Your task to perform on an android device: Open Yahoo.com Image 0: 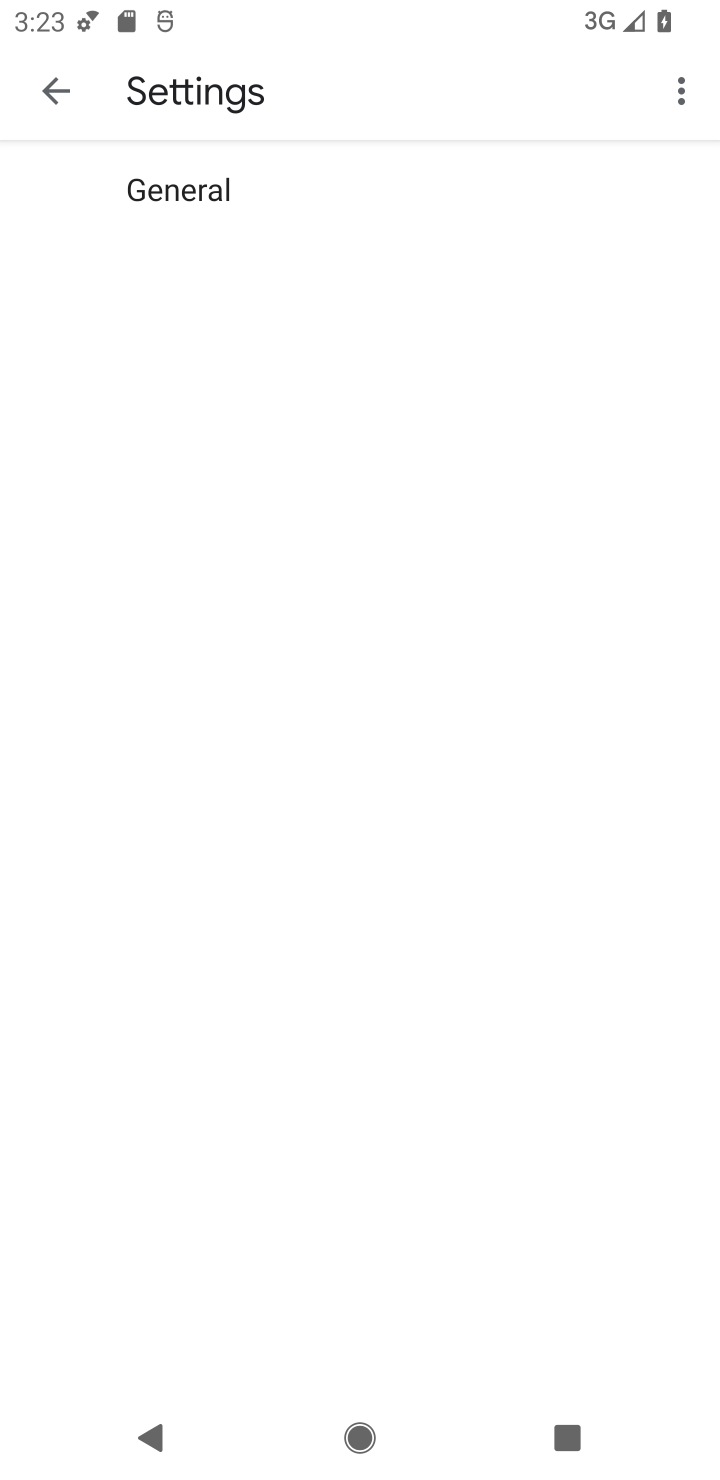
Step 0: press home button
Your task to perform on an android device: Open Yahoo.com Image 1: 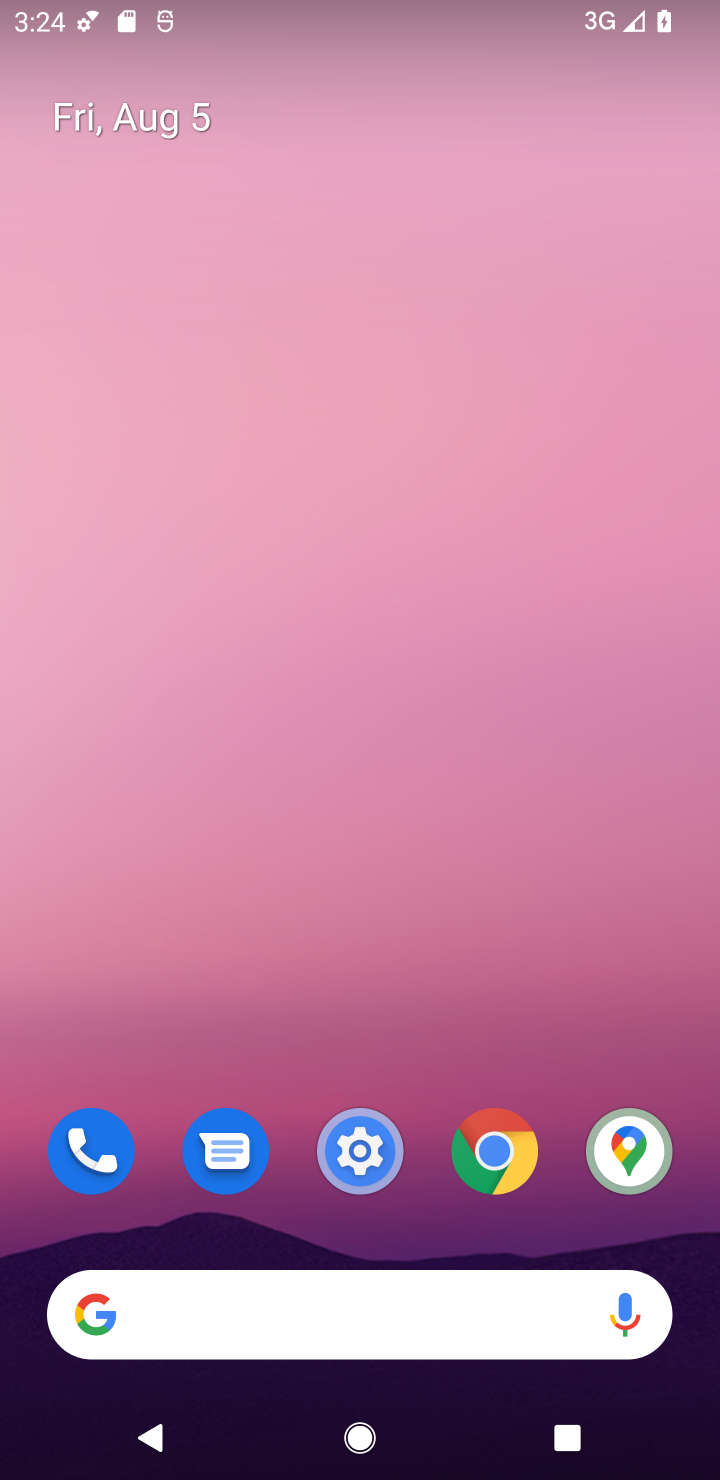
Step 1: click (482, 1173)
Your task to perform on an android device: Open Yahoo.com Image 2: 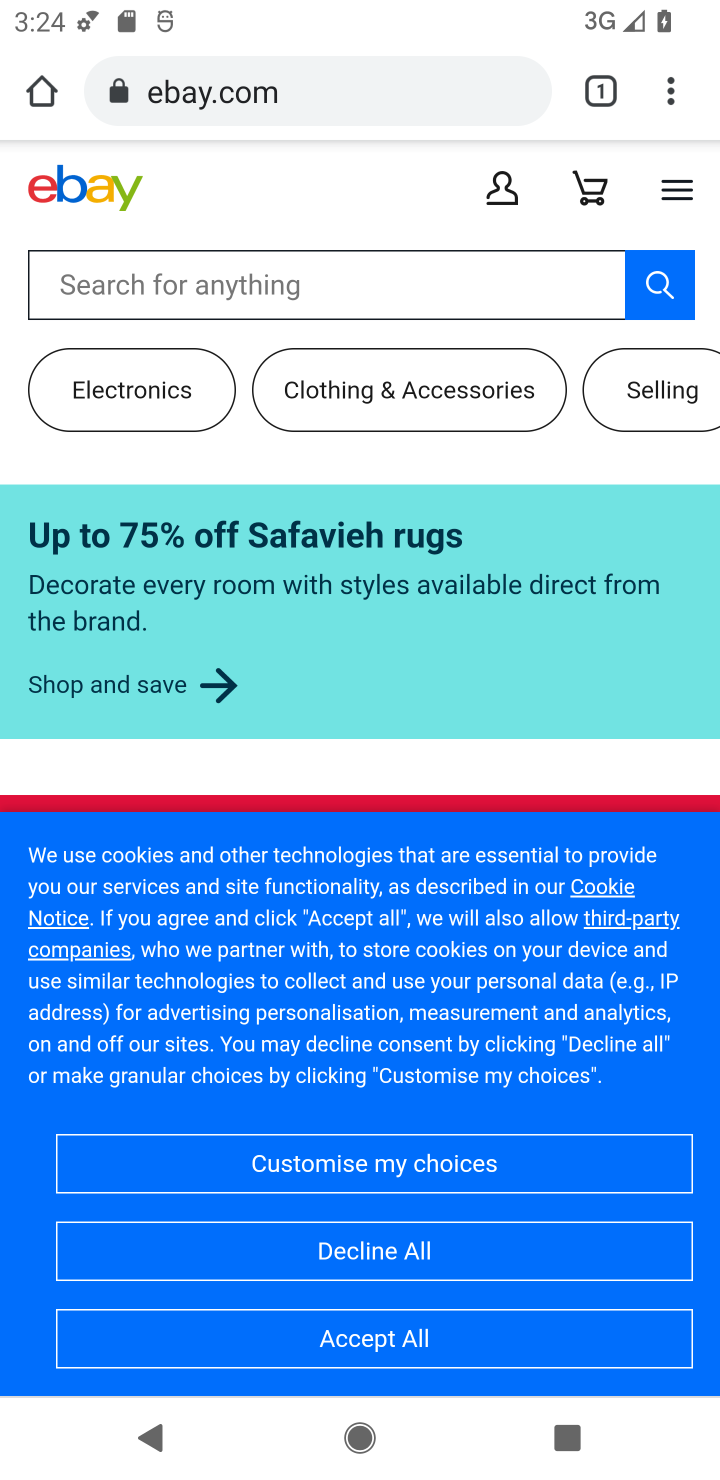
Step 2: click (601, 86)
Your task to perform on an android device: Open Yahoo.com Image 3: 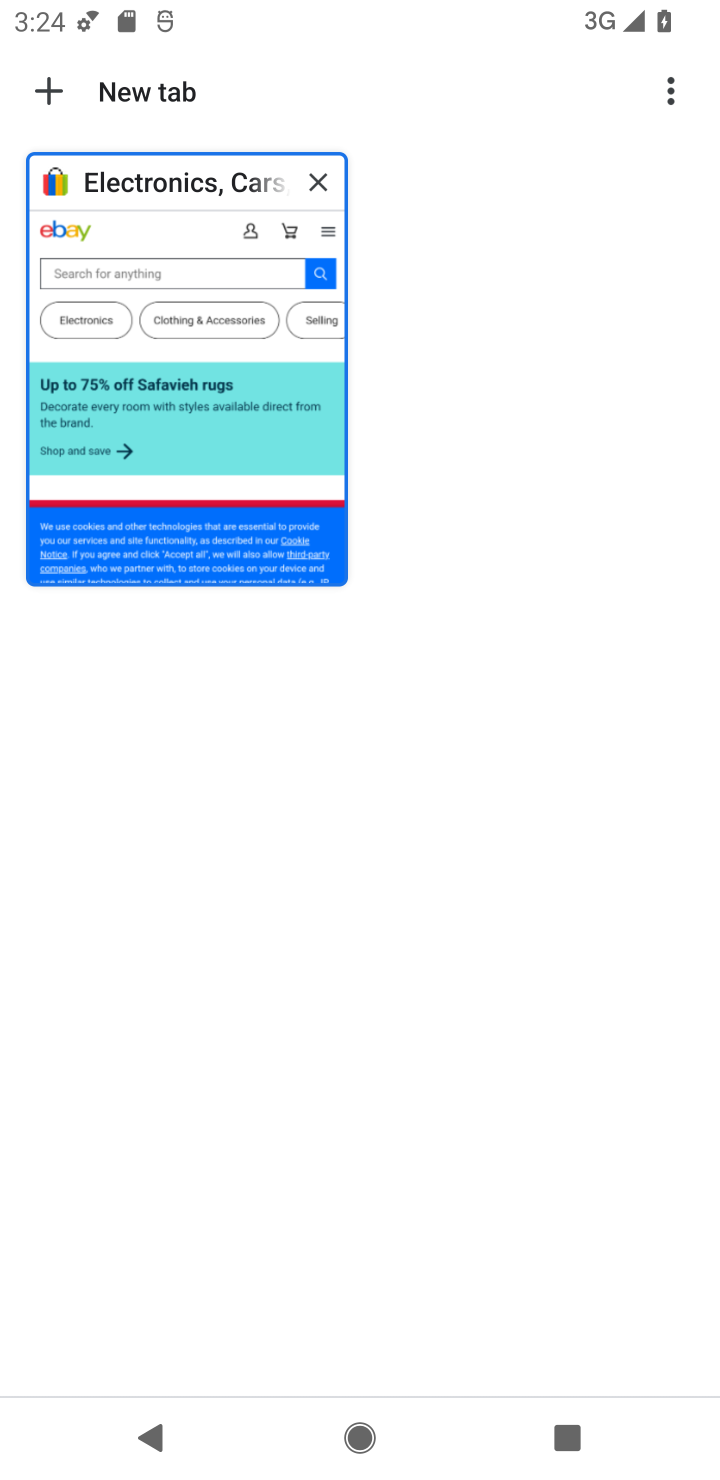
Step 3: click (316, 179)
Your task to perform on an android device: Open Yahoo.com Image 4: 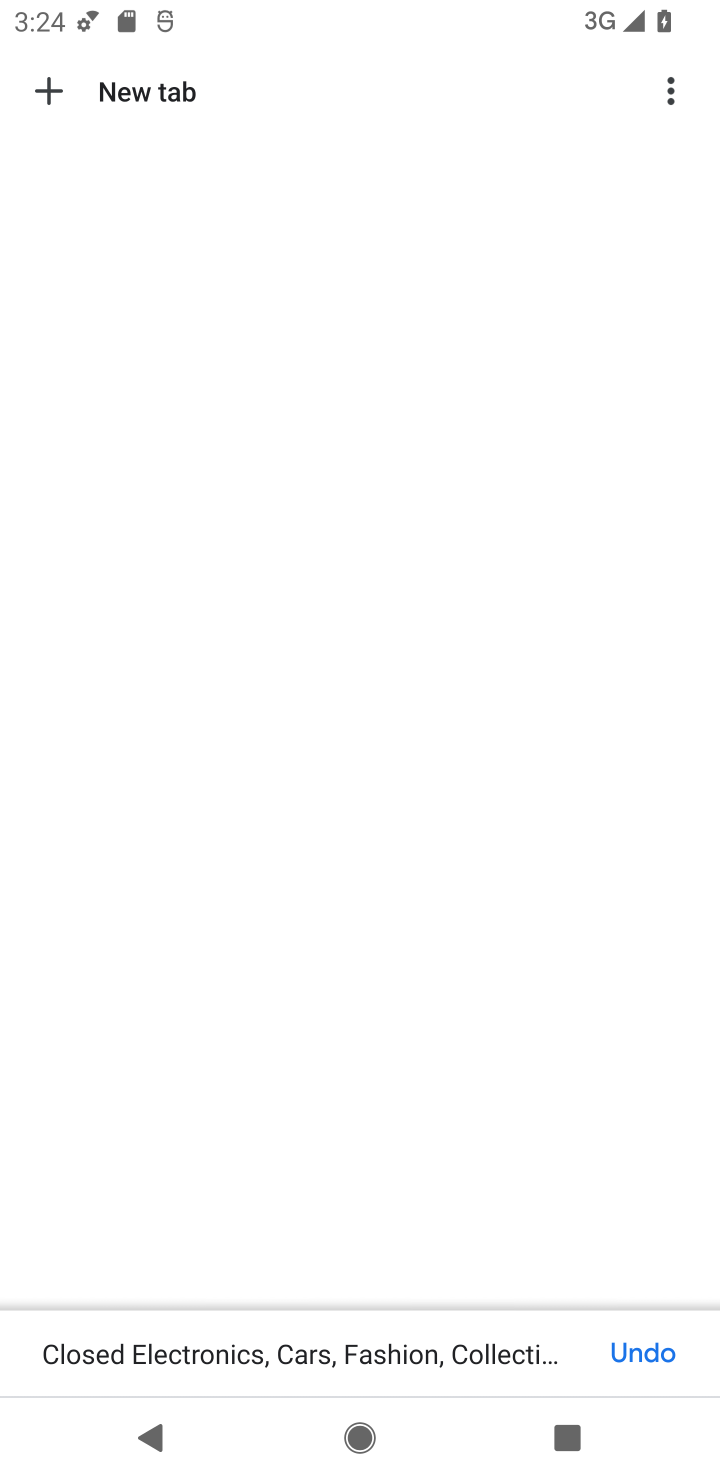
Step 4: click (46, 94)
Your task to perform on an android device: Open Yahoo.com Image 5: 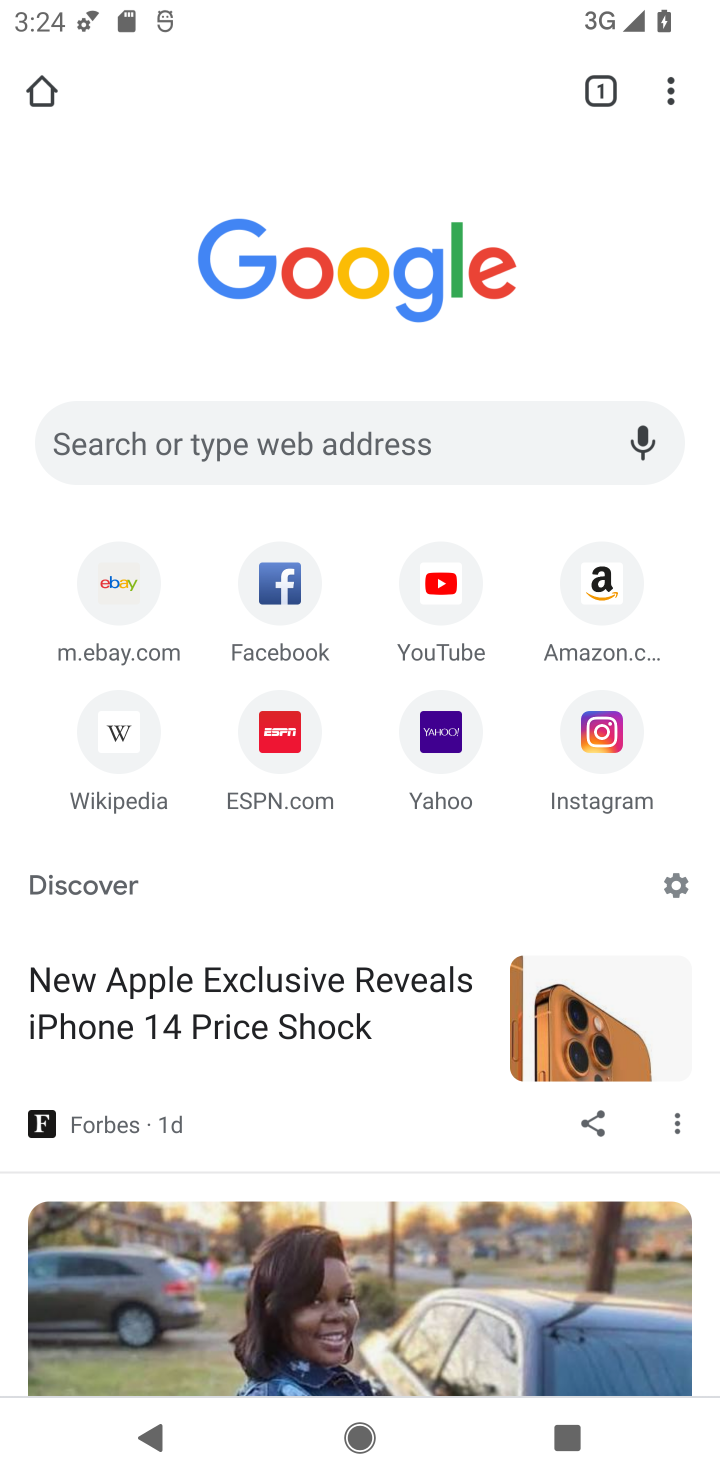
Step 5: click (435, 736)
Your task to perform on an android device: Open Yahoo.com Image 6: 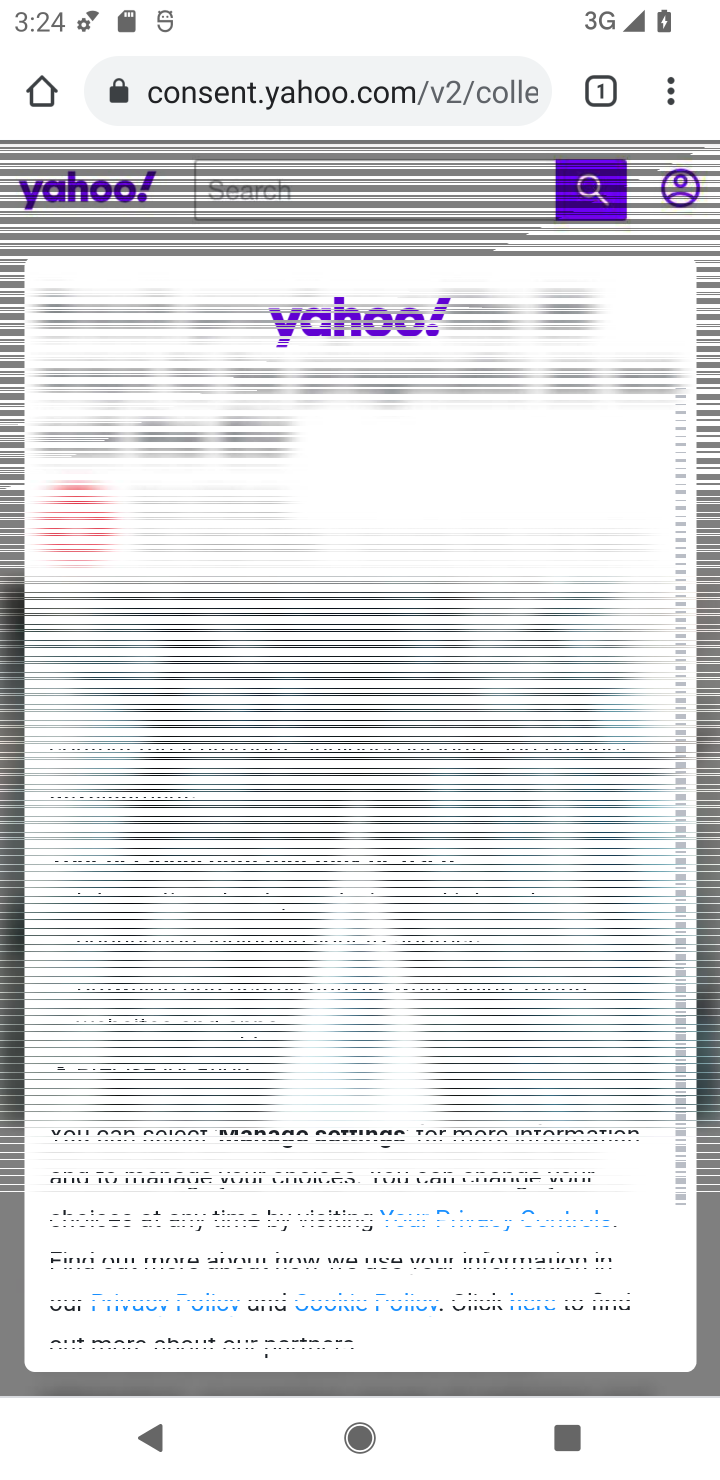
Step 6: task complete